Your task to perform on an android device: turn on the 12-hour format for clock Image 0: 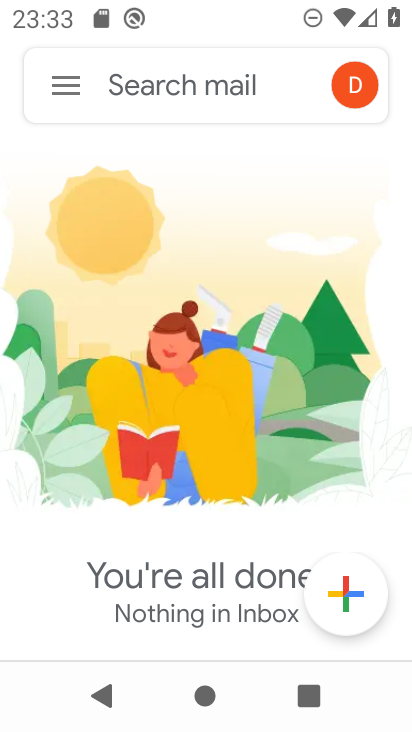
Step 0: press home button
Your task to perform on an android device: turn on the 12-hour format for clock Image 1: 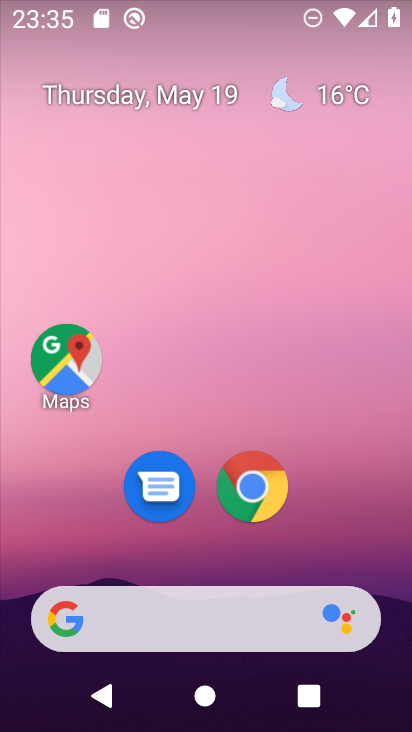
Step 1: drag from (388, 488) to (299, 157)
Your task to perform on an android device: turn on the 12-hour format for clock Image 2: 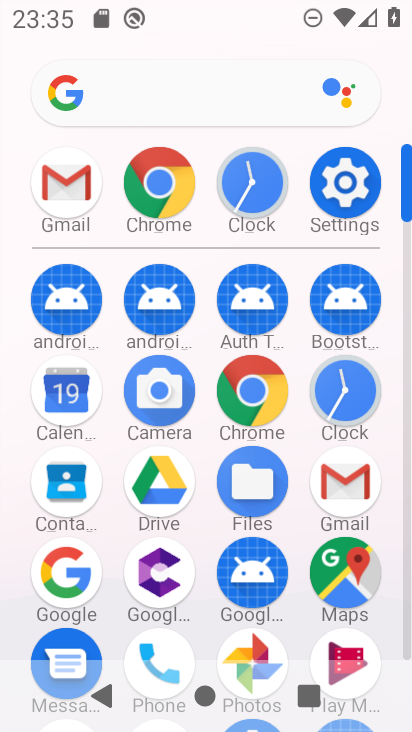
Step 2: click (248, 190)
Your task to perform on an android device: turn on the 12-hour format for clock Image 3: 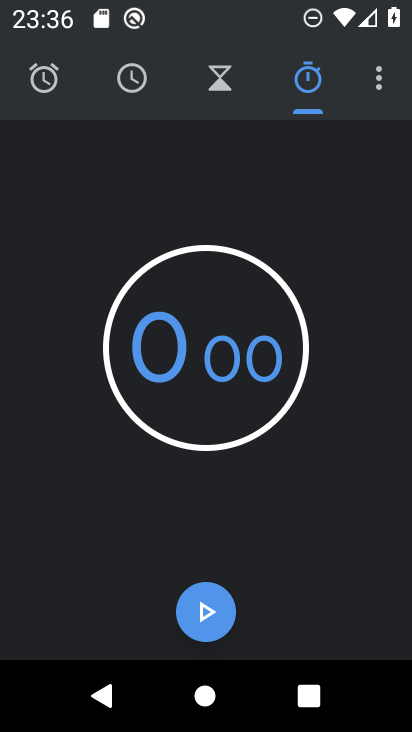
Step 3: click (376, 75)
Your task to perform on an android device: turn on the 12-hour format for clock Image 4: 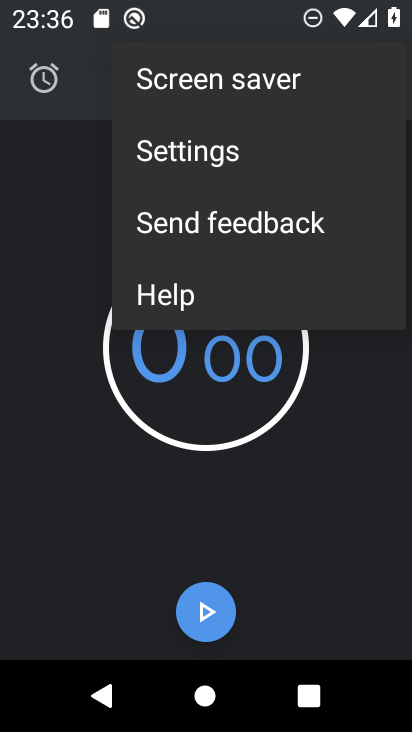
Step 4: click (205, 165)
Your task to perform on an android device: turn on the 12-hour format for clock Image 5: 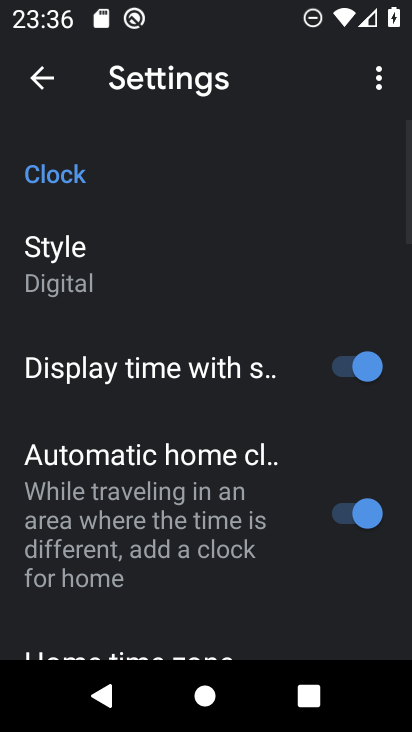
Step 5: drag from (119, 476) to (121, 321)
Your task to perform on an android device: turn on the 12-hour format for clock Image 6: 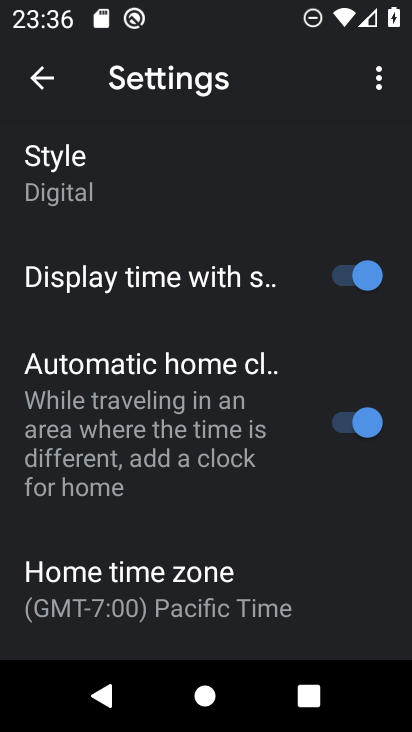
Step 6: drag from (117, 550) to (114, 357)
Your task to perform on an android device: turn on the 12-hour format for clock Image 7: 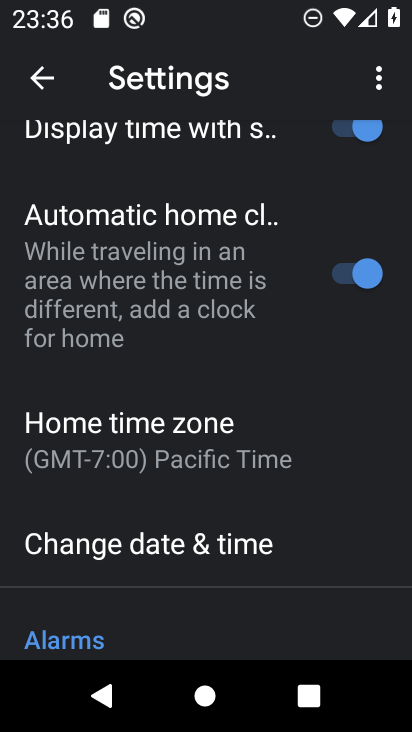
Step 7: click (117, 564)
Your task to perform on an android device: turn on the 12-hour format for clock Image 8: 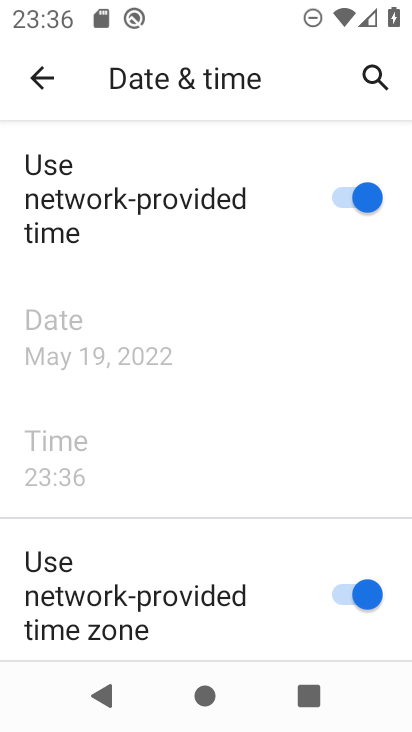
Step 8: click (201, 512)
Your task to perform on an android device: turn on the 12-hour format for clock Image 9: 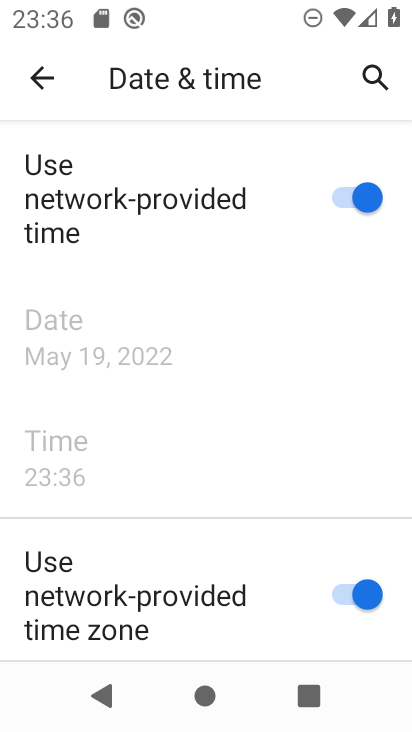
Step 9: drag from (201, 512) to (197, 272)
Your task to perform on an android device: turn on the 12-hour format for clock Image 10: 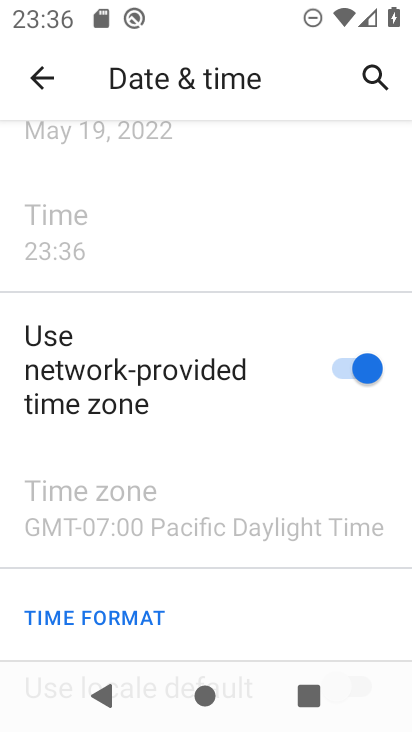
Step 10: drag from (150, 610) to (147, 168)
Your task to perform on an android device: turn on the 12-hour format for clock Image 11: 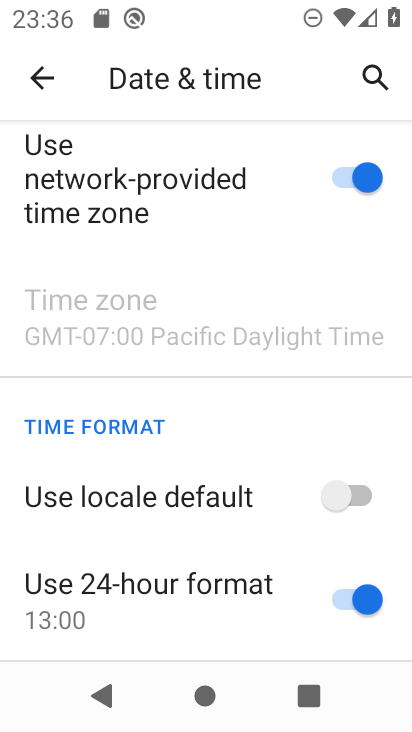
Step 11: click (252, 591)
Your task to perform on an android device: turn on the 12-hour format for clock Image 12: 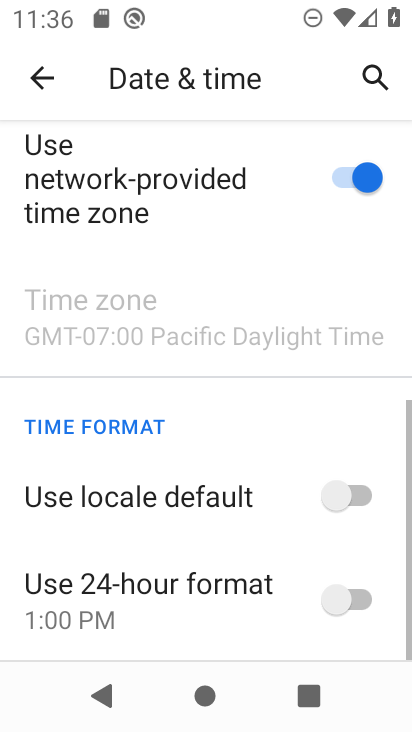
Step 12: task complete